Your task to perform on an android device: open chrome privacy settings Image 0: 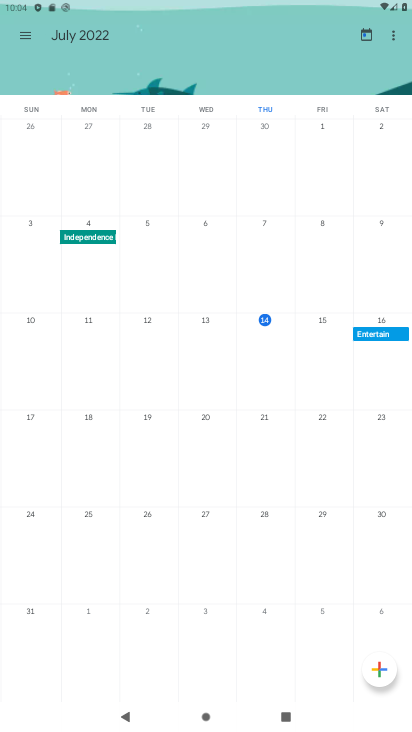
Step 0: press home button
Your task to perform on an android device: open chrome privacy settings Image 1: 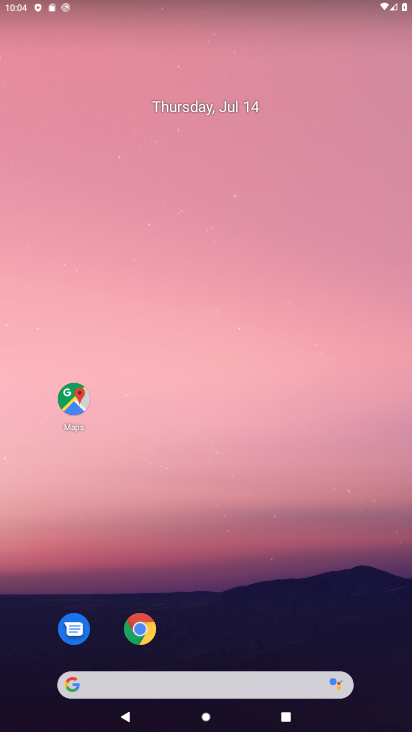
Step 1: drag from (181, 668) to (195, 358)
Your task to perform on an android device: open chrome privacy settings Image 2: 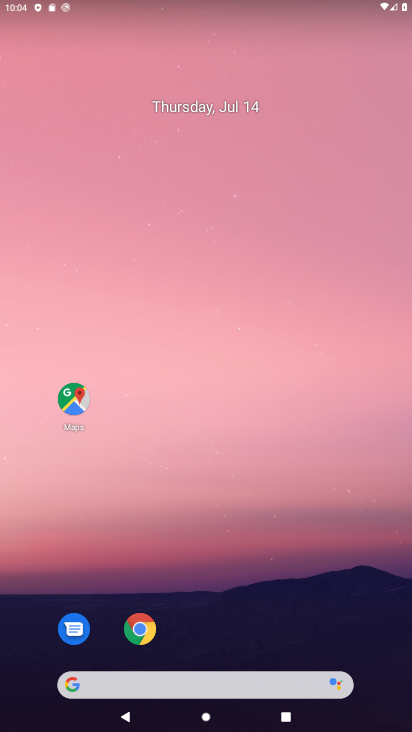
Step 2: drag from (244, 671) to (229, 289)
Your task to perform on an android device: open chrome privacy settings Image 3: 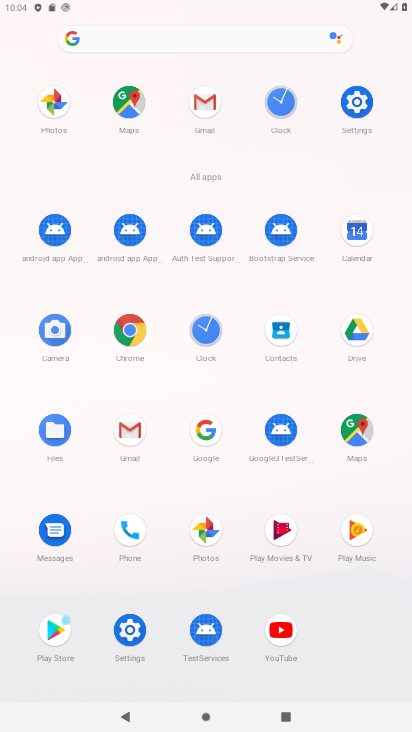
Step 3: click (353, 106)
Your task to perform on an android device: open chrome privacy settings Image 4: 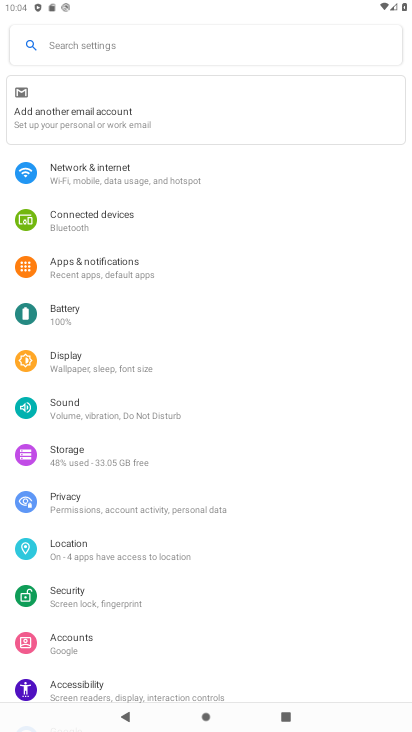
Step 4: click (75, 507)
Your task to perform on an android device: open chrome privacy settings Image 5: 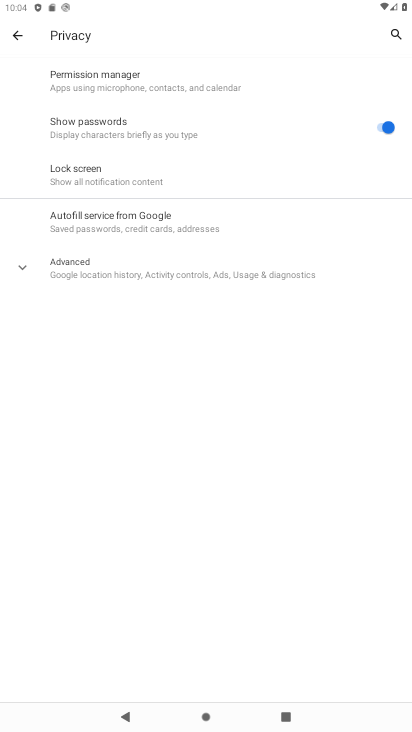
Step 5: click (114, 269)
Your task to perform on an android device: open chrome privacy settings Image 6: 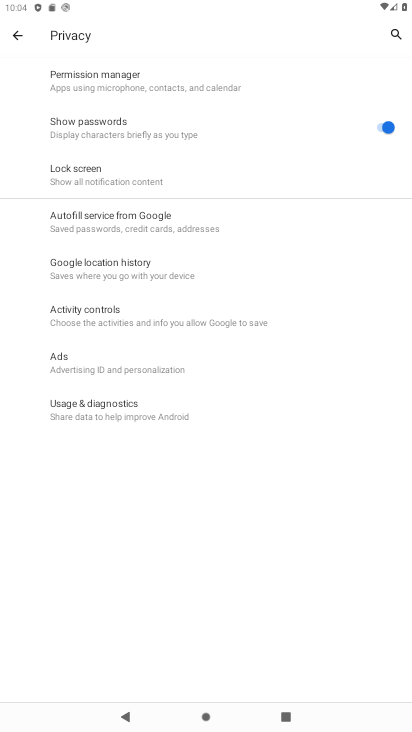
Step 6: task complete